Your task to perform on an android device: toggle pop-ups in chrome Image 0: 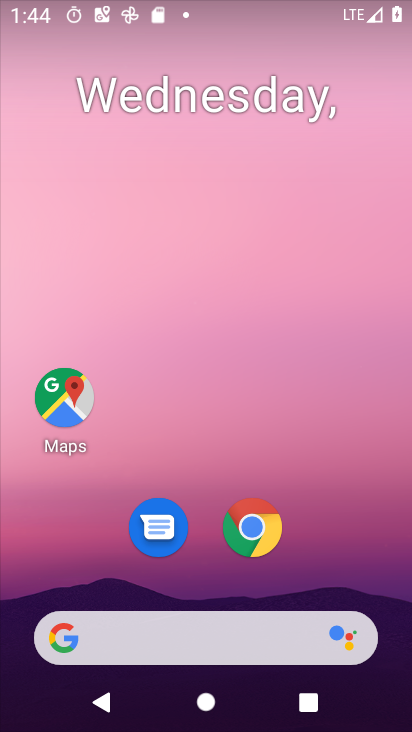
Step 0: drag from (145, 650) to (239, 2)
Your task to perform on an android device: toggle pop-ups in chrome Image 1: 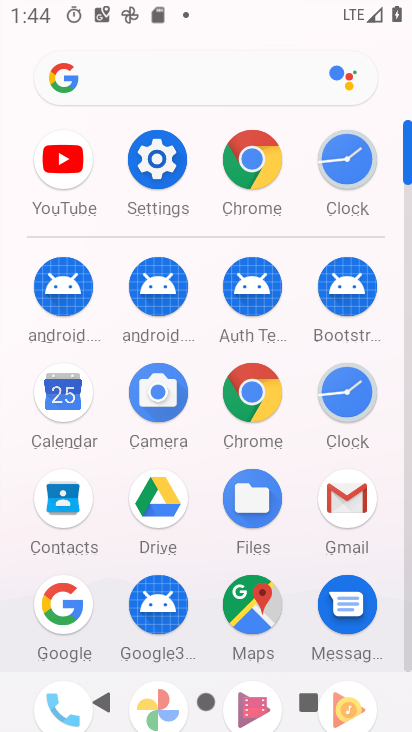
Step 1: click (244, 393)
Your task to perform on an android device: toggle pop-ups in chrome Image 2: 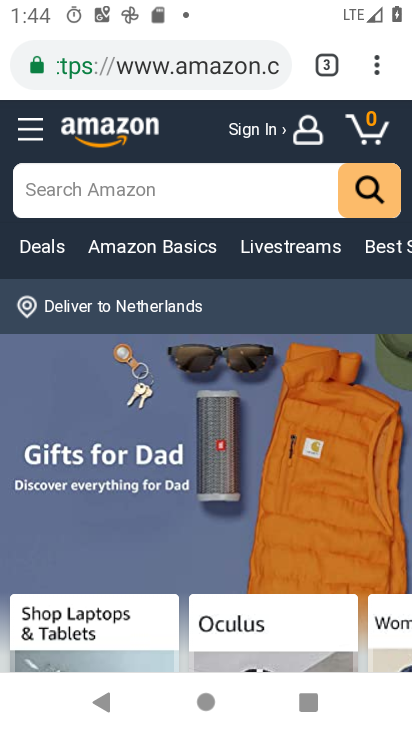
Step 2: drag from (384, 65) to (203, 582)
Your task to perform on an android device: toggle pop-ups in chrome Image 3: 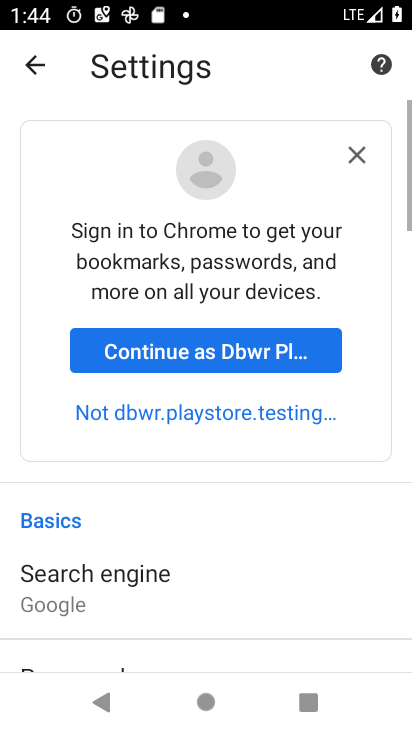
Step 3: drag from (256, 599) to (345, 0)
Your task to perform on an android device: toggle pop-ups in chrome Image 4: 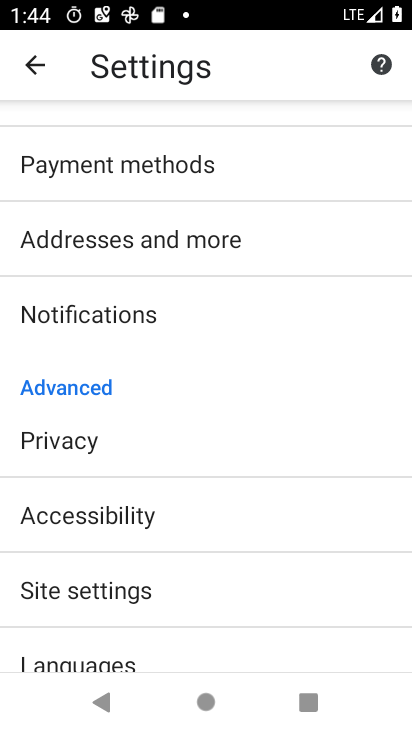
Step 4: drag from (209, 586) to (212, 181)
Your task to perform on an android device: toggle pop-ups in chrome Image 5: 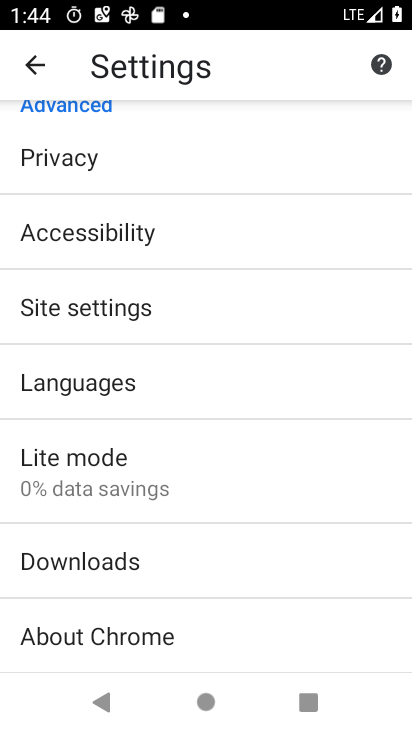
Step 5: click (179, 307)
Your task to perform on an android device: toggle pop-ups in chrome Image 6: 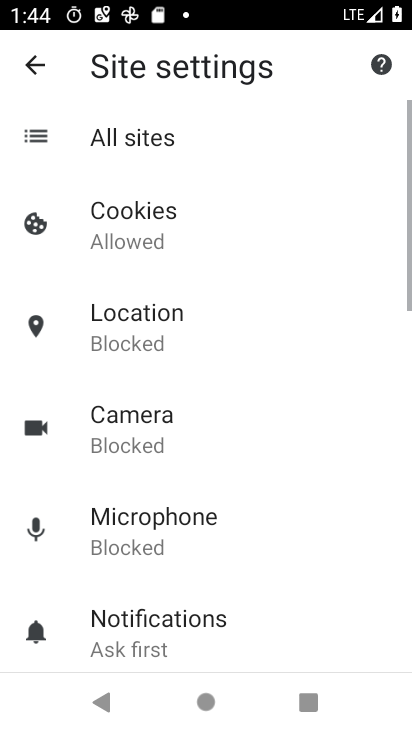
Step 6: drag from (238, 620) to (252, 20)
Your task to perform on an android device: toggle pop-ups in chrome Image 7: 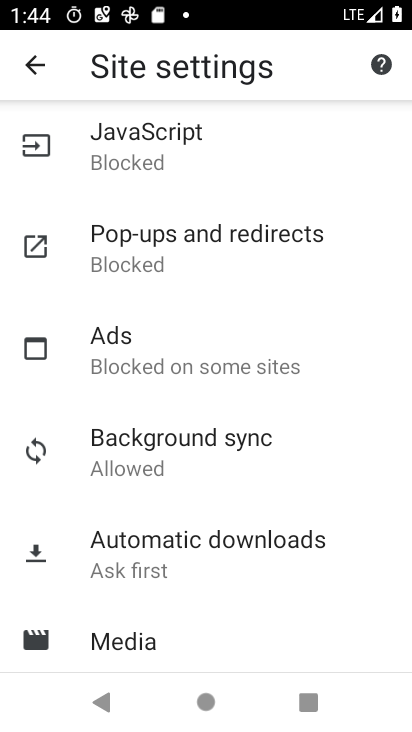
Step 7: click (280, 228)
Your task to perform on an android device: toggle pop-ups in chrome Image 8: 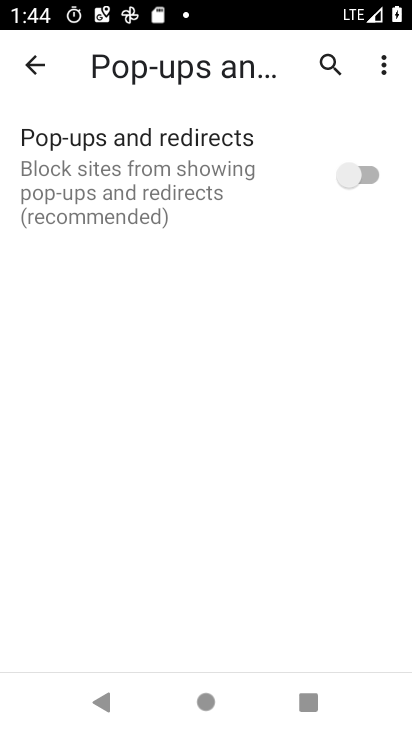
Step 8: click (352, 174)
Your task to perform on an android device: toggle pop-ups in chrome Image 9: 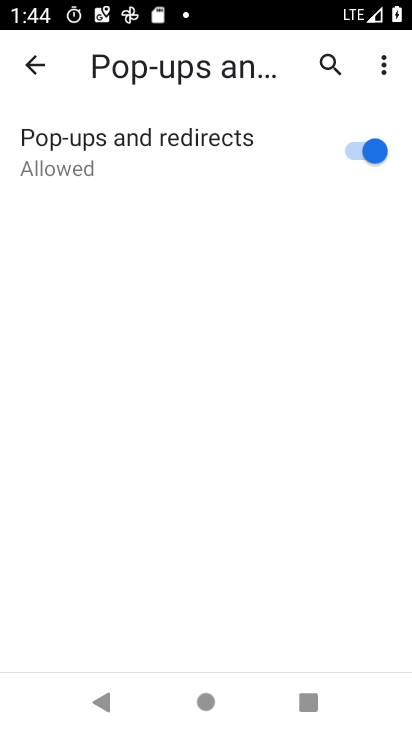
Step 9: task complete